Your task to perform on an android device: toggle improve location accuracy Image 0: 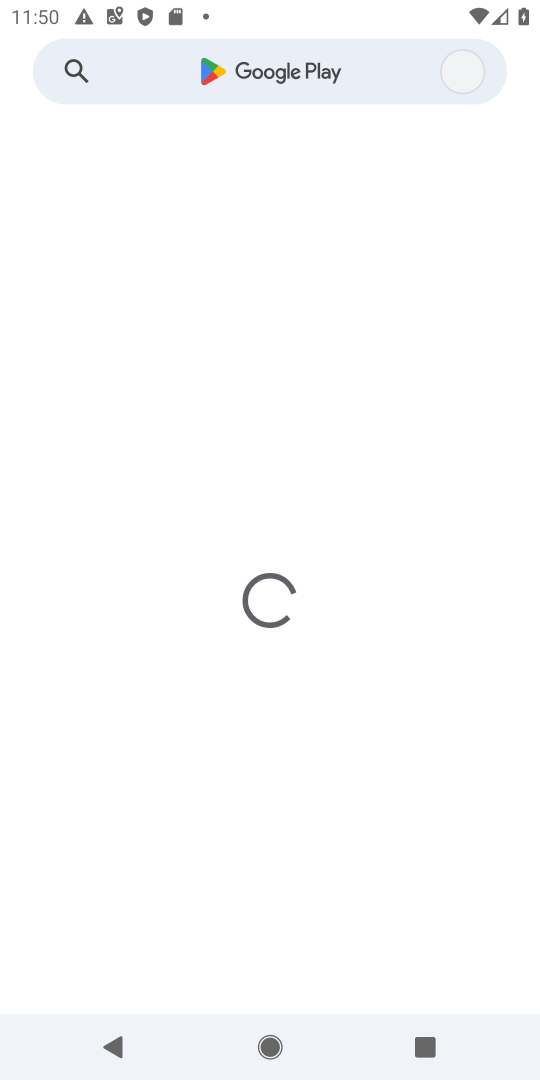
Step 0: press home button
Your task to perform on an android device: toggle improve location accuracy Image 1: 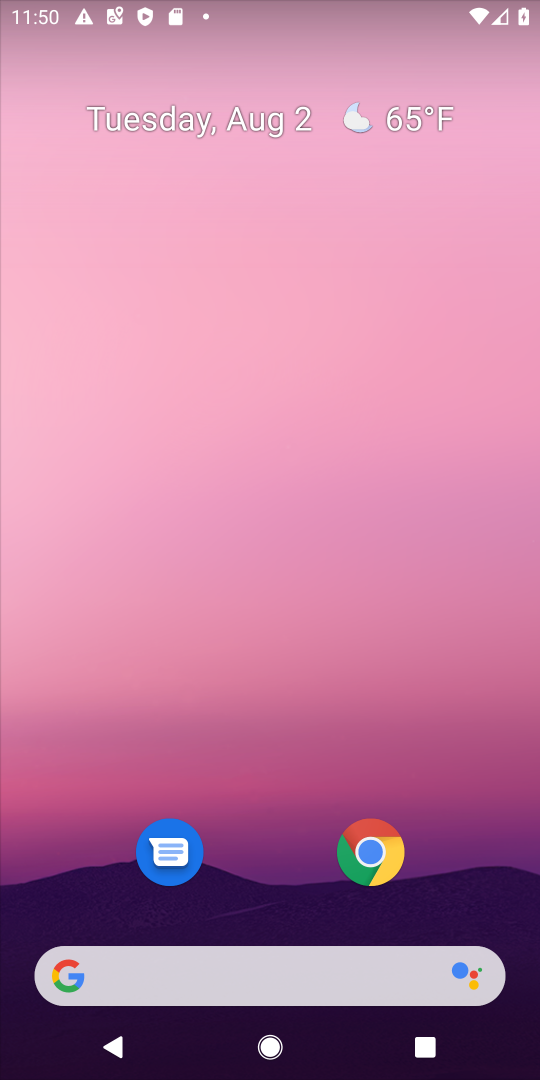
Step 1: drag from (486, 894) to (222, 50)
Your task to perform on an android device: toggle improve location accuracy Image 2: 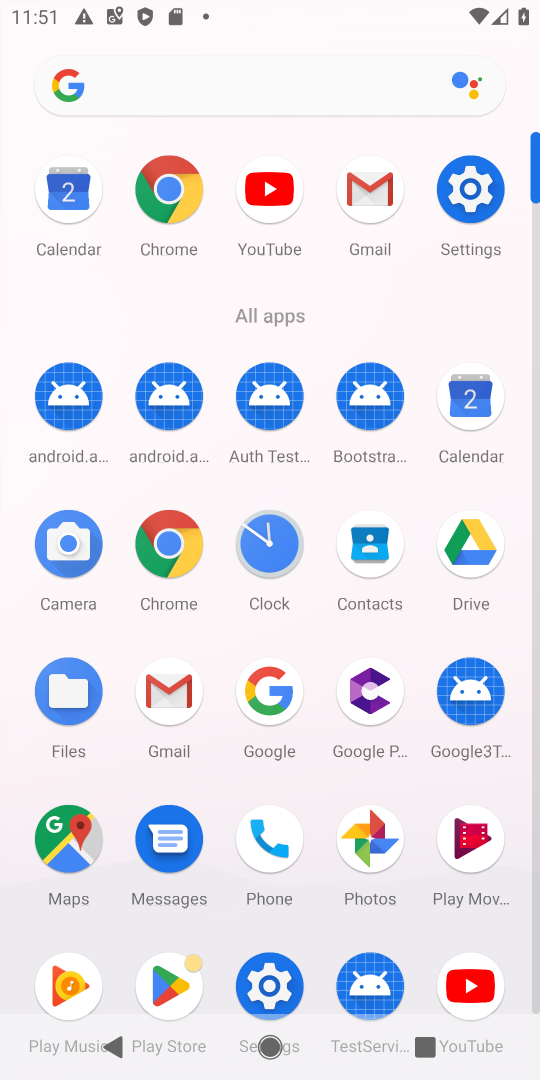
Step 2: click (259, 952)
Your task to perform on an android device: toggle improve location accuracy Image 3: 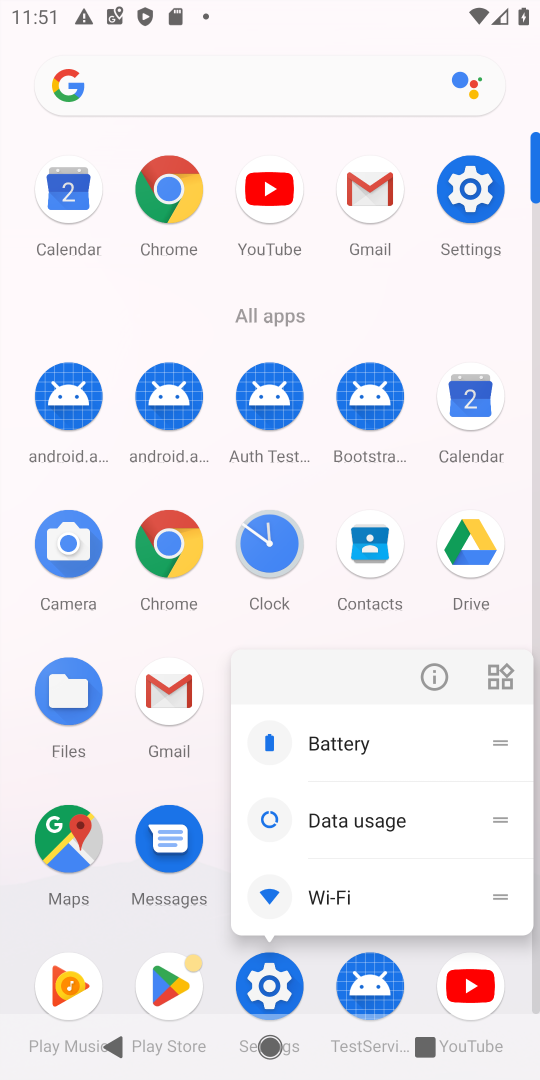
Step 3: click (259, 952)
Your task to perform on an android device: toggle improve location accuracy Image 4: 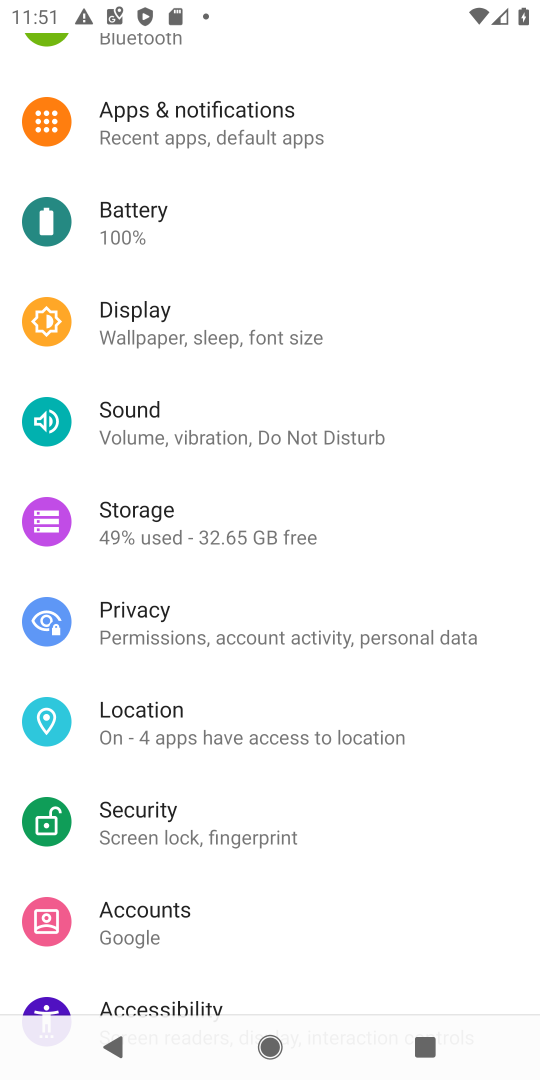
Step 4: click (175, 719)
Your task to perform on an android device: toggle improve location accuracy Image 5: 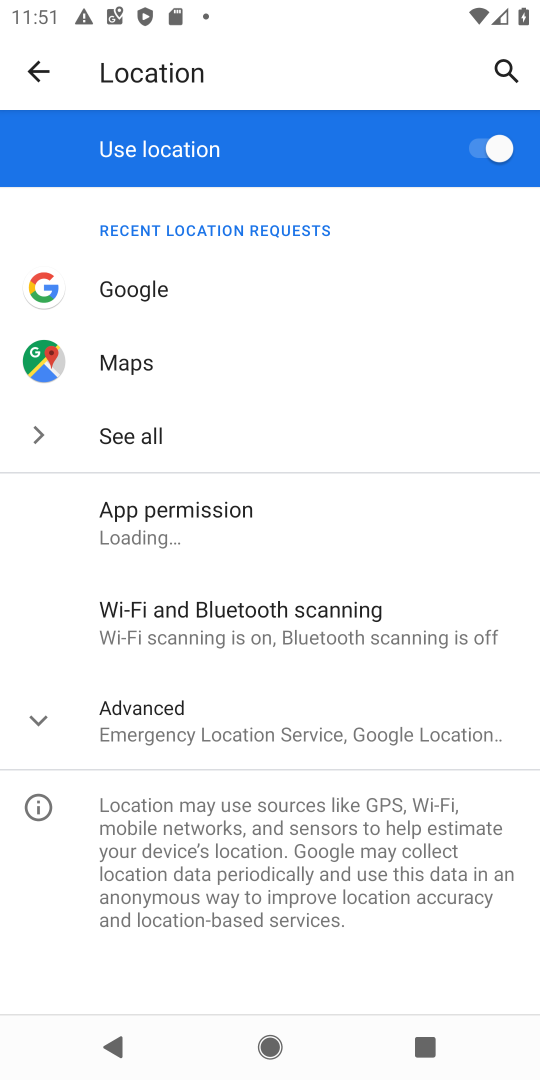
Step 5: click (90, 706)
Your task to perform on an android device: toggle improve location accuracy Image 6: 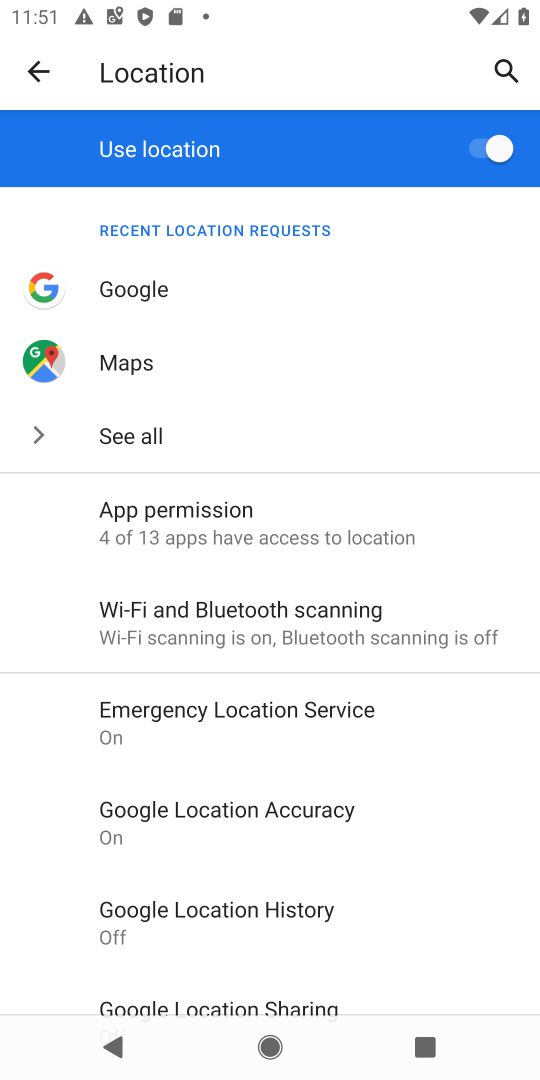
Step 6: click (215, 823)
Your task to perform on an android device: toggle improve location accuracy Image 7: 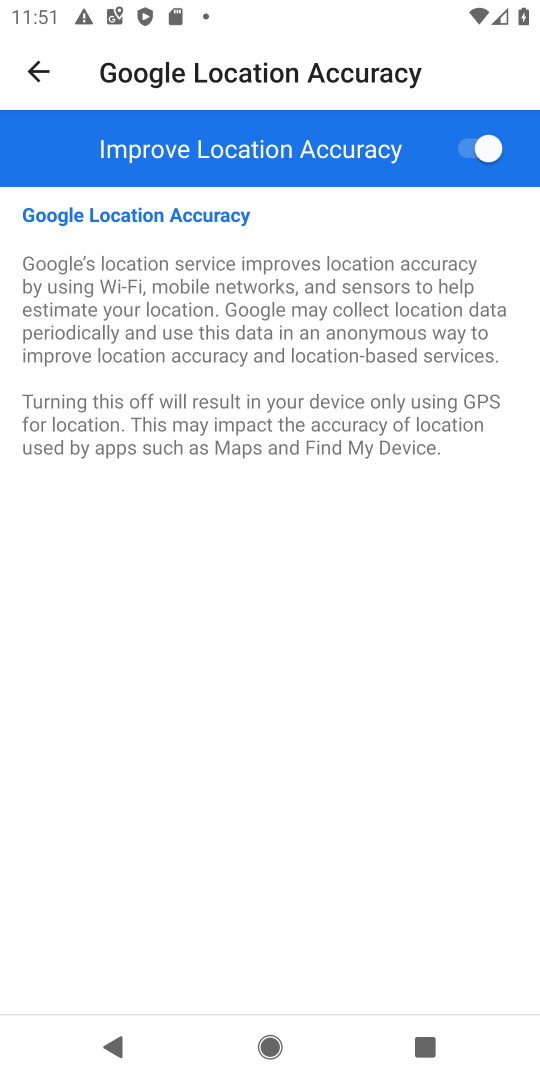
Step 7: click (466, 156)
Your task to perform on an android device: toggle improve location accuracy Image 8: 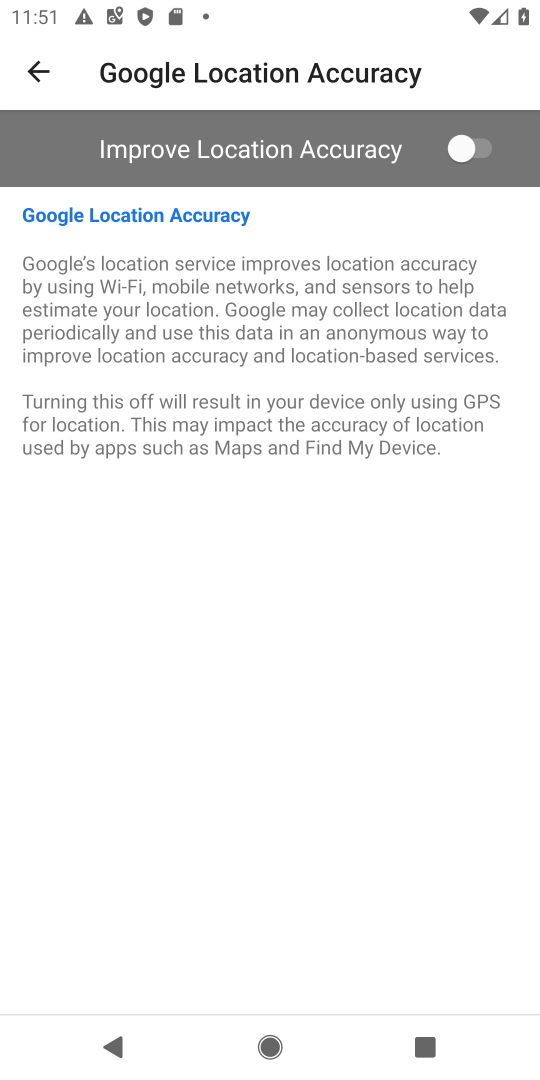
Step 8: task complete